Your task to perform on an android device: Go to battery settings Image 0: 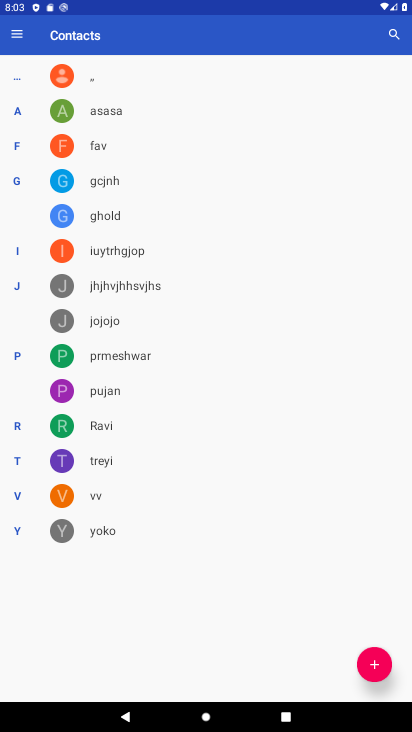
Step 0: press home button
Your task to perform on an android device: Go to battery settings Image 1: 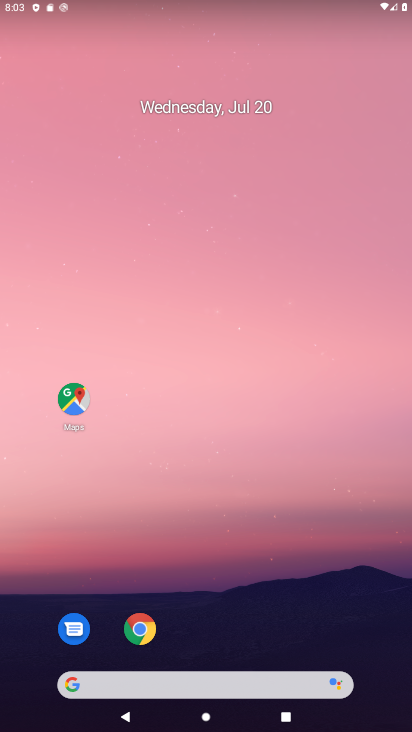
Step 1: drag from (208, 623) to (263, 147)
Your task to perform on an android device: Go to battery settings Image 2: 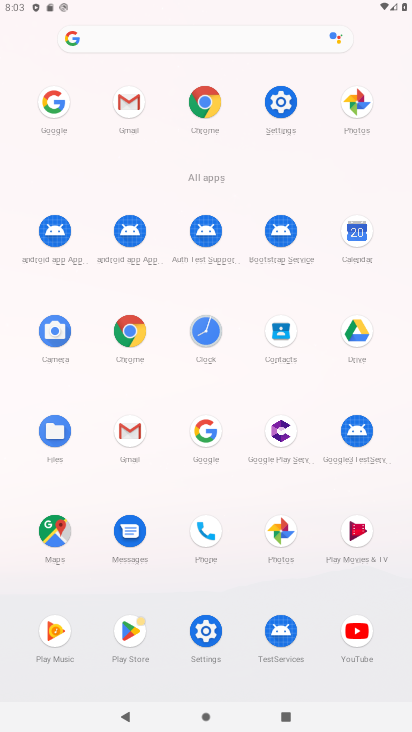
Step 2: click (262, 109)
Your task to perform on an android device: Go to battery settings Image 3: 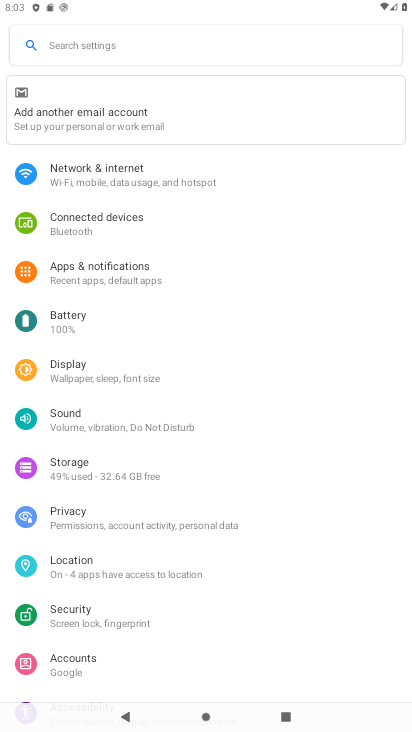
Step 3: click (69, 315)
Your task to perform on an android device: Go to battery settings Image 4: 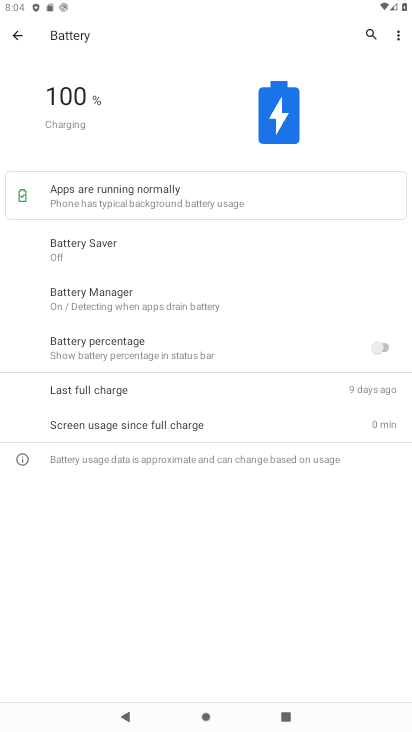
Step 4: task complete